Your task to perform on an android device: snooze an email in the gmail app Image 0: 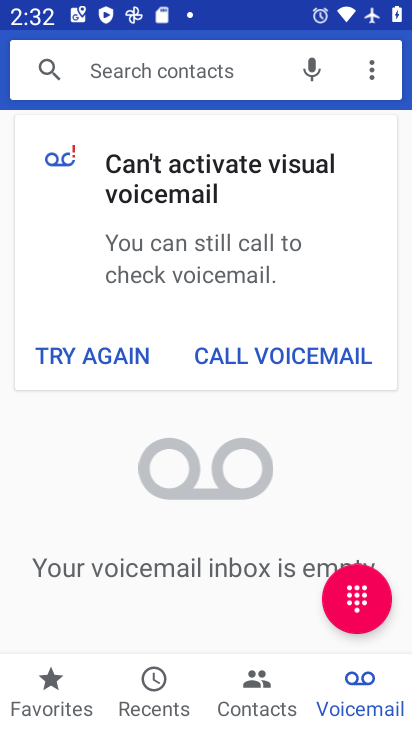
Step 0: press home button
Your task to perform on an android device: snooze an email in the gmail app Image 1: 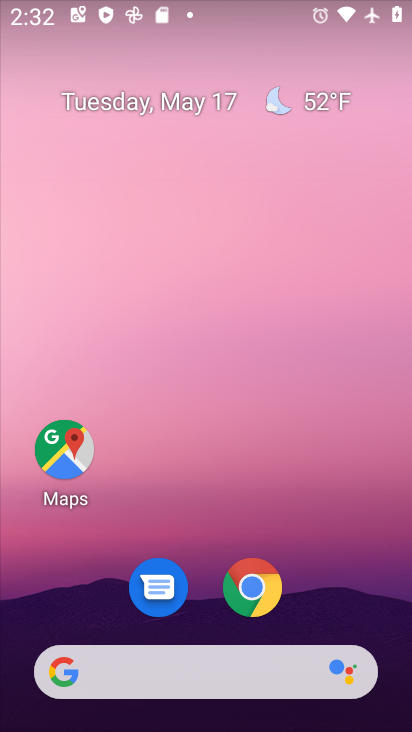
Step 1: drag from (329, 615) to (352, 169)
Your task to perform on an android device: snooze an email in the gmail app Image 2: 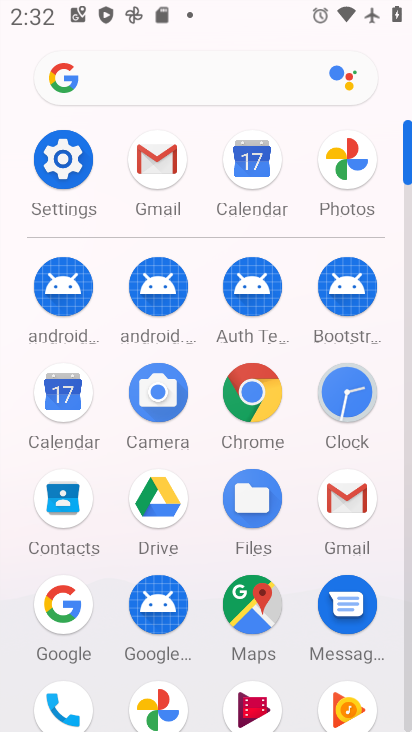
Step 2: click (369, 527)
Your task to perform on an android device: snooze an email in the gmail app Image 3: 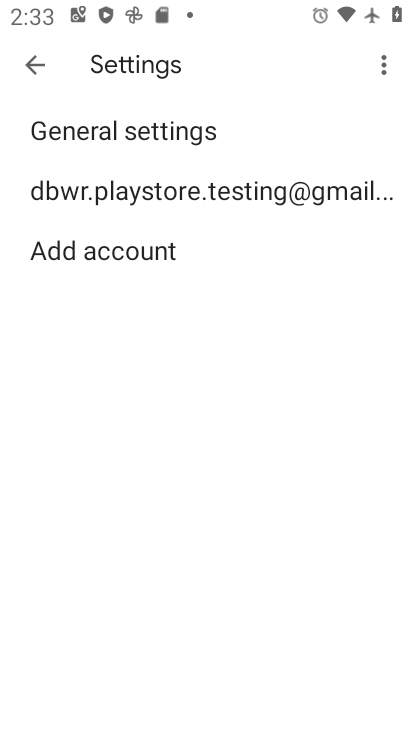
Step 3: click (43, 62)
Your task to perform on an android device: snooze an email in the gmail app Image 4: 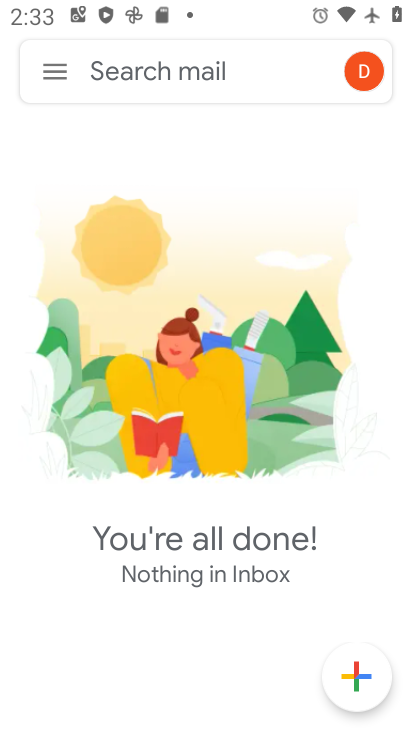
Step 4: click (56, 81)
Your task to perform on an android device: snooze an email in the gmail app Image 5: 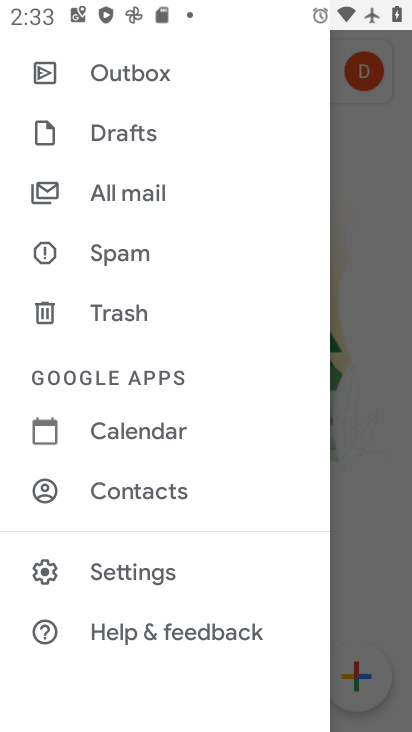
Step 5: click (171, 190)
Your task to perform on an android device: snooze an email in the gmail app Image 6: 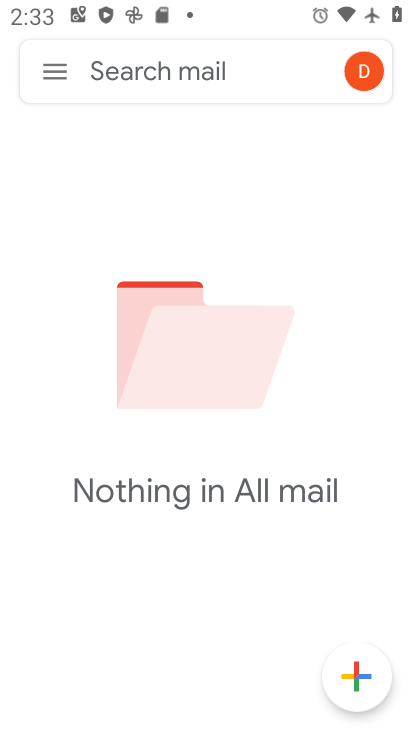
Step 6: task complete